Your task to perform on an android device: turn off javascript in the chrome app Image 0: 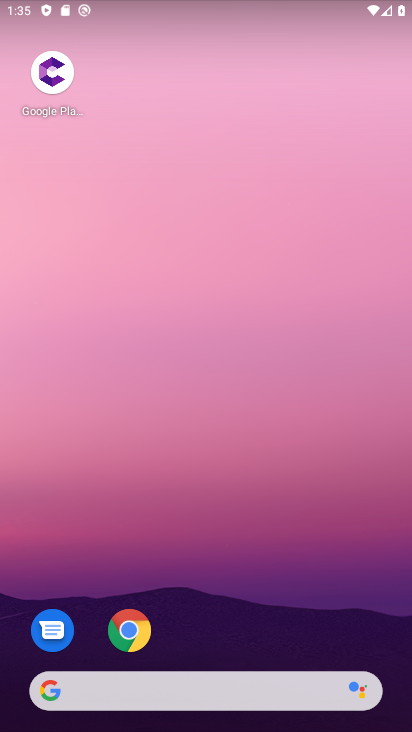
Step 0: click (208, 627)
Your task to perform on an android device: turn off javascript in the chrome app Image 1: 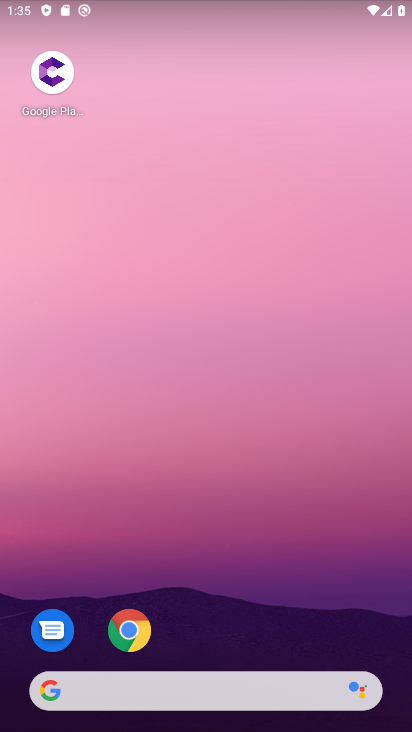
Step 1: click (138, 624)
Your task to perform on an android device: turn off javascript in the chrome app Image 2: 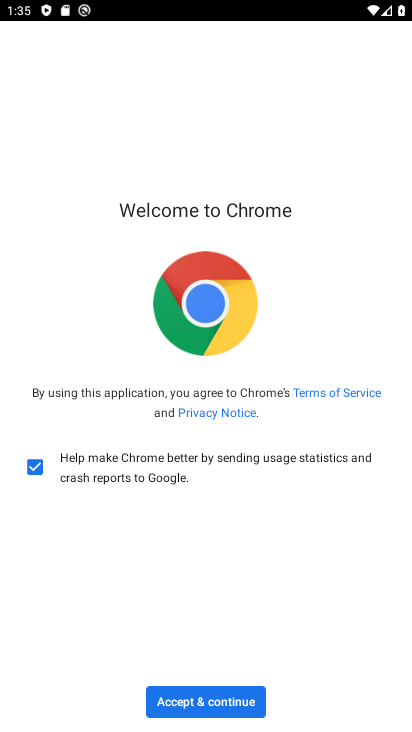
Step 2: click (177, 701)
Your task to perform on an android device: turn off javascript in the chrome app Image 3: 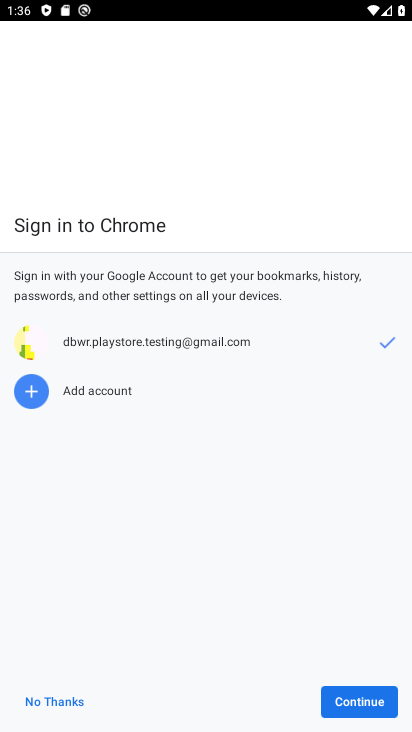
Step 3: click (344, 700)
Your task to perform on an android device: turn off javascript in the chrome app Image 4: 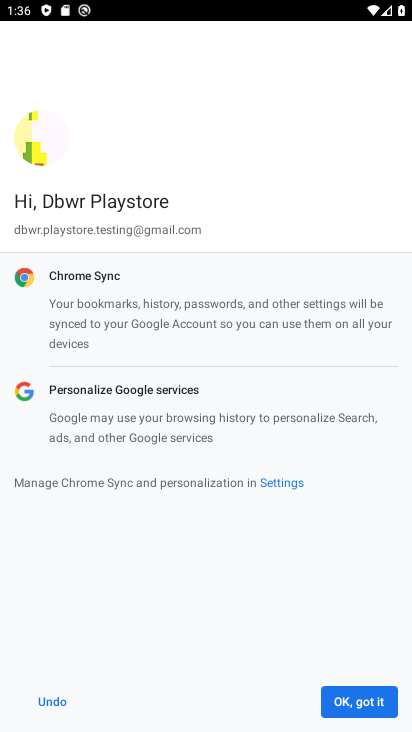
Step 4: click (344, 700)
Your task to perform on an android device: turn off javascript in the chrome app Image 5: 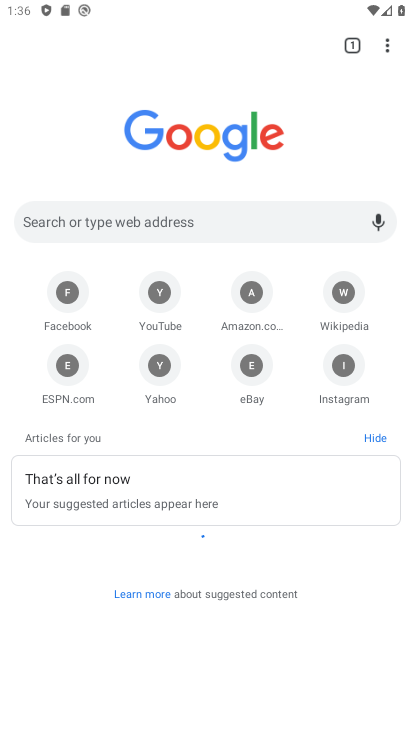
Step 5: click (383, 36)
Your task to perform on an android device: turn off javascript in the chrome app Image 6: 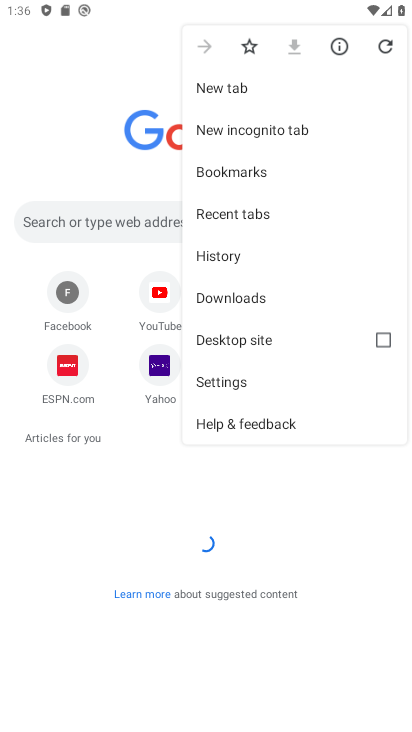
Step 6: click (244, 390)
Your task to perform on an android device: turn off javascript in the chrome app Image 7: 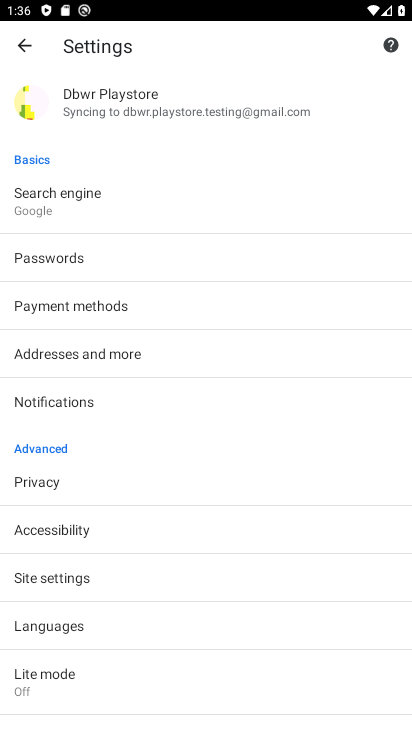
Step 7: click (103, 581)
Your task to perform on an android device: turn off javascript in the chrome app Image 8: 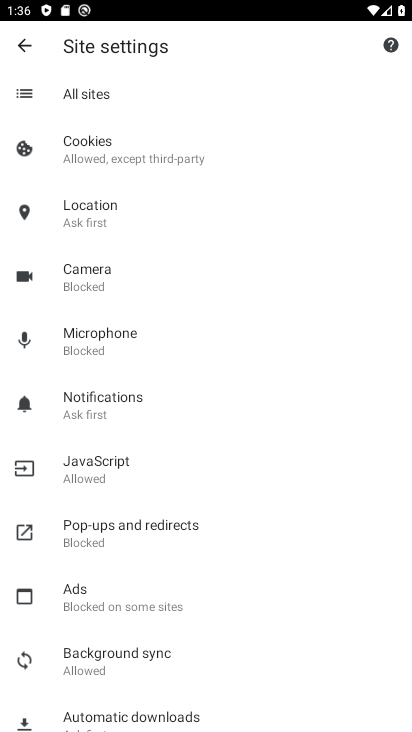
Step 8: drag from (159, 628) to (159, 587)
Your task to perform on an android device: turn off javascript in the chrome app Image 9: 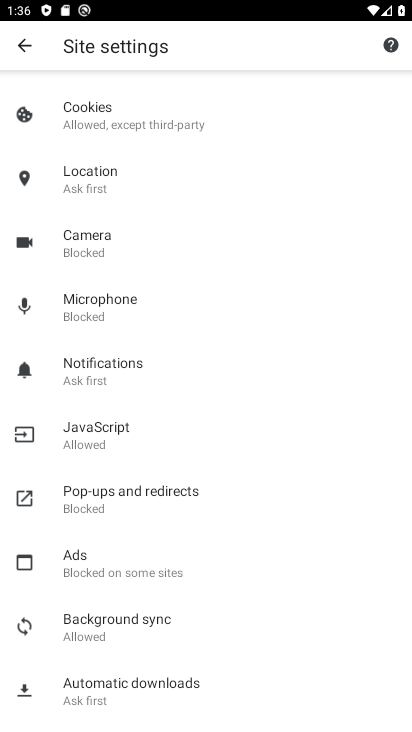
Step 9: click (138, 447)
Your task to perform on an android device: turn off javascript in the chrome app Image 10: 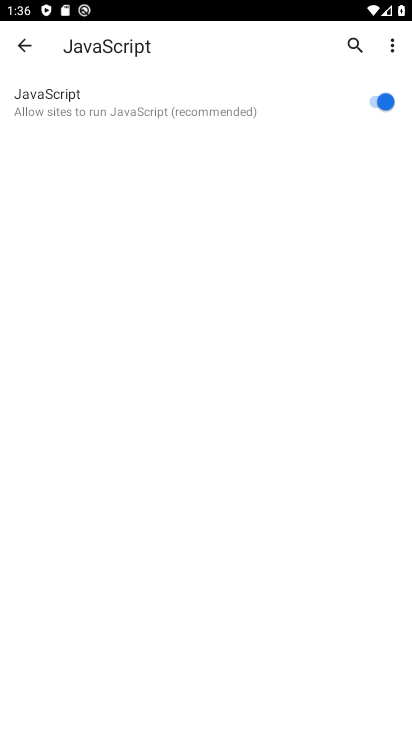
Step 10: click (378, 96)
Your task to perform on an android device: turn off javascript in the chrome app Image 11: 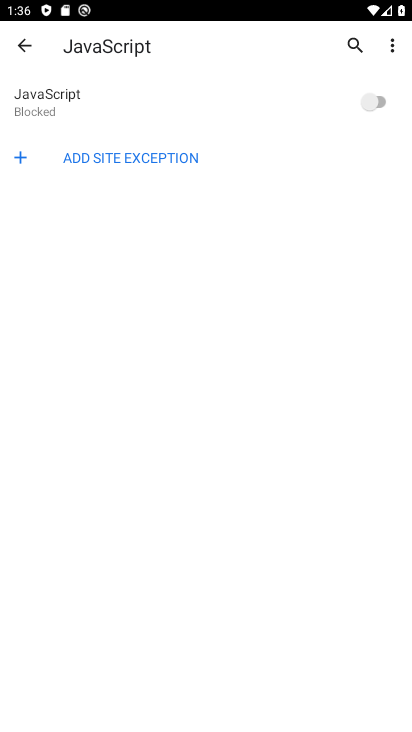
Step 11: task complete